Your task to perform on an android device: toggle notifications settings in the gmail app Image 0: 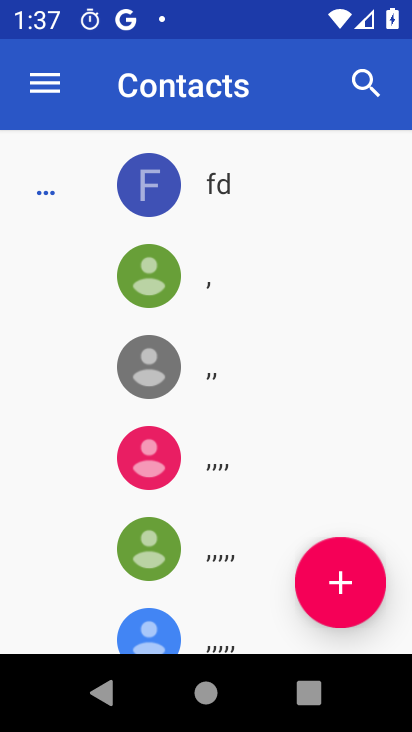
Step 0: press home button
Your task to perform on an android device: toggle notifications settings in the gmail app Image 1: 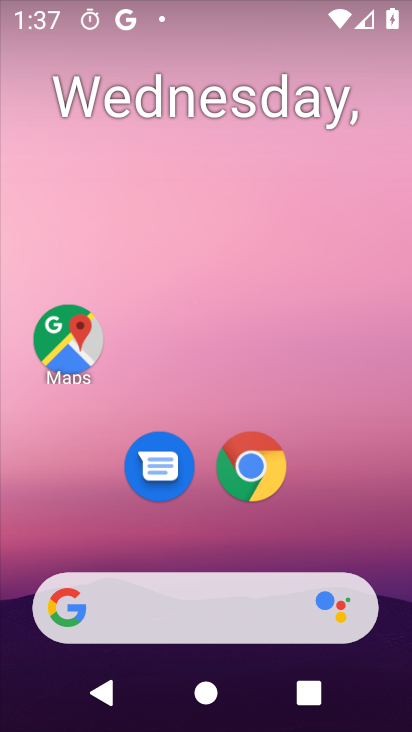
Step 1: drag from (354, 543) to (296, 148)
Your task to perform on an android device: toggle notifications settings in the gmail app Image 2: 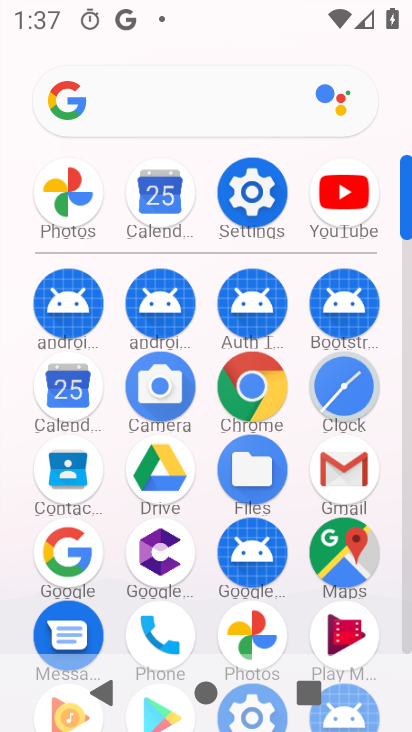
Step 2: click (325, 469)
Your task to perform on an android device: toggle notifications settings in the gmail app Image 3: 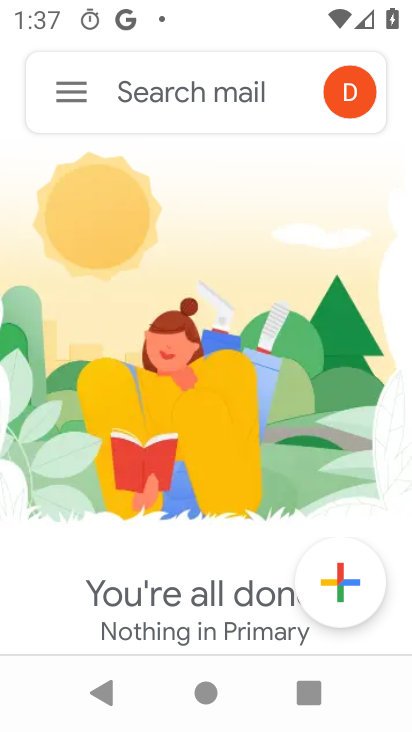
Step 3: click (59, 89)
Your task to perform on an android device: toggle notifications settings in the gmail app Image 4: 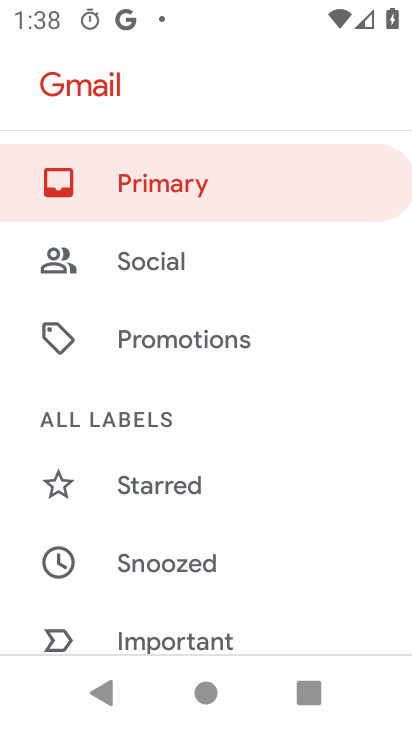
Step 4: drag from (220, 484) to (193, 56)
Your task to perform on an android device: toggle notifications settings in the gmail app Image 5: 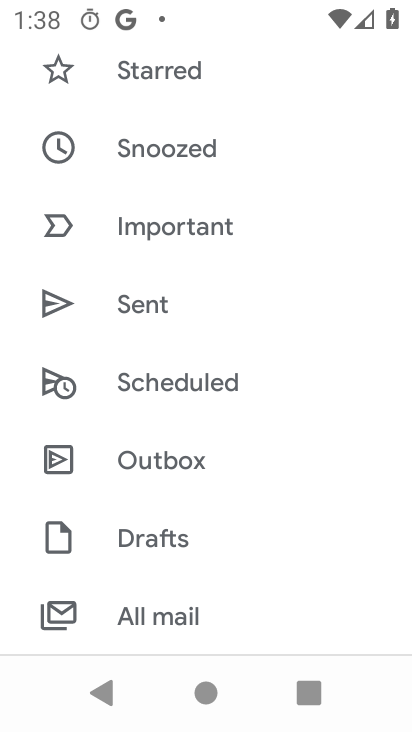
Step 5: drag from (246, 488) to (199, 39)
Your task to perform on an android device: toggle notifications settings in the gmail app Image 6: 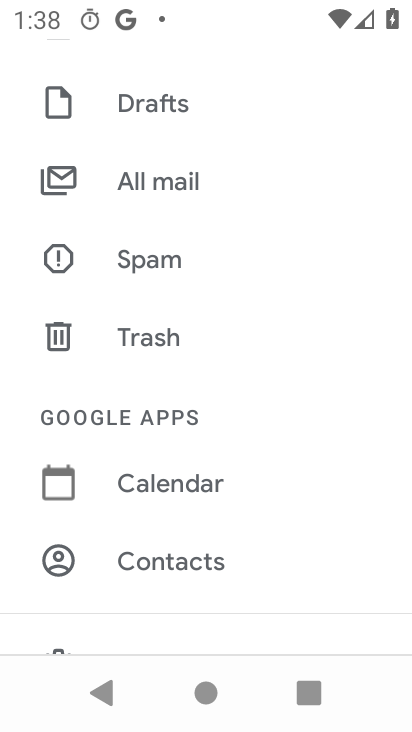
Step 6: drag from (206, 455) to (164, 38)
Your task to perform on an android device: toggle notifications settings in the gmail app Image 7: 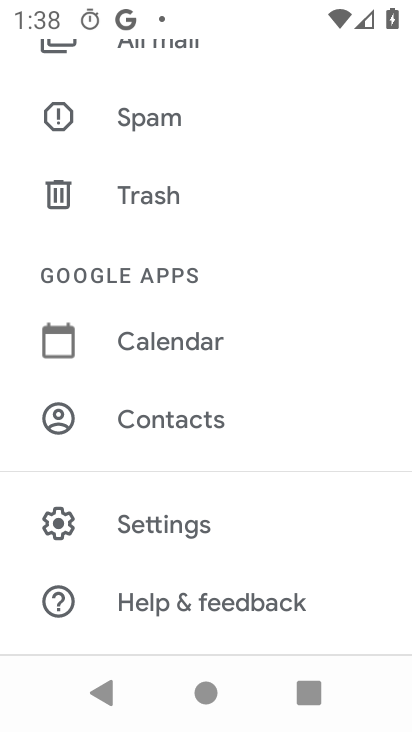
Step 7: click (234, 511)
Your task to perform on an android device: toggle notifications settings in the gmail app Image 8: 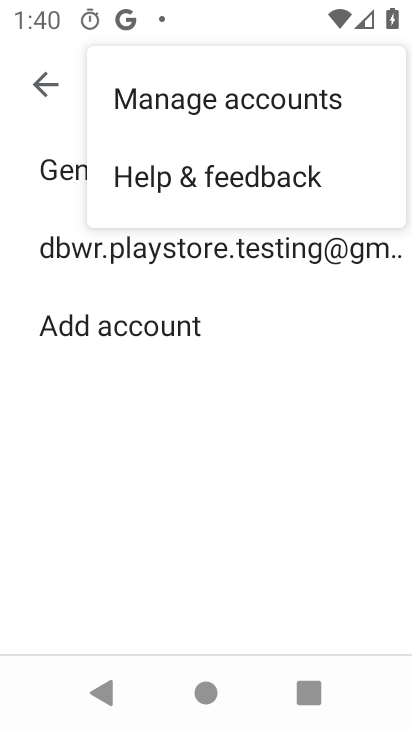
Step 8: press back button
Your task to perform on an android device: toggle notifications settings in the gmail app Image 9: 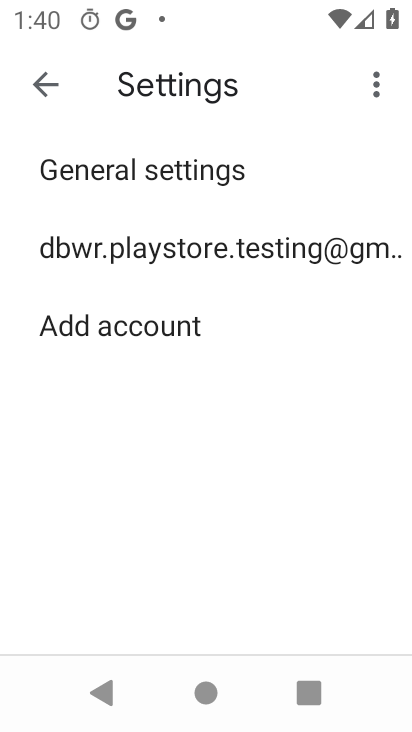
Step 9: press back button
Your task to perform on an android device: toggle notifications settings in the gmail app Image 10: 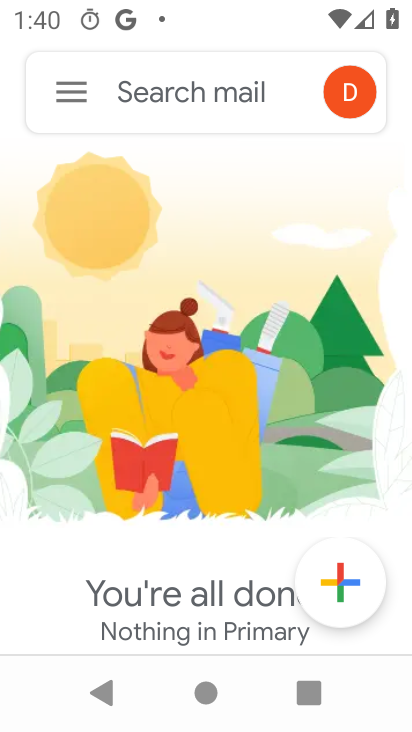
Step 10: click (74, 90)
Your task to perform on an android device: toggle notifications settings in the gmail app Image 11: 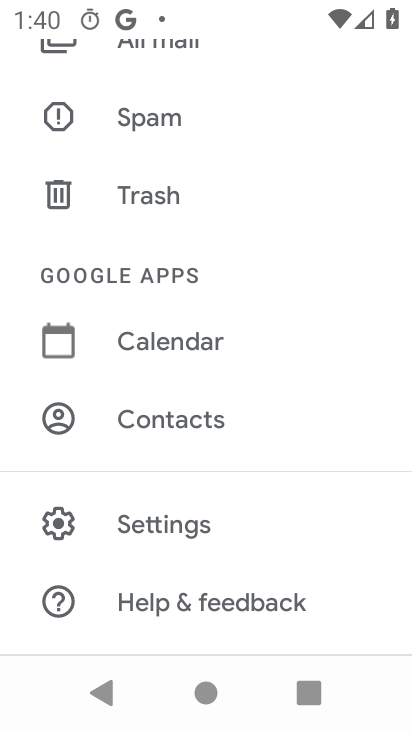
Step 11: click (178, 525)
Your task to perform on an android device: toggle notifications settings in the gmail app Image 12: 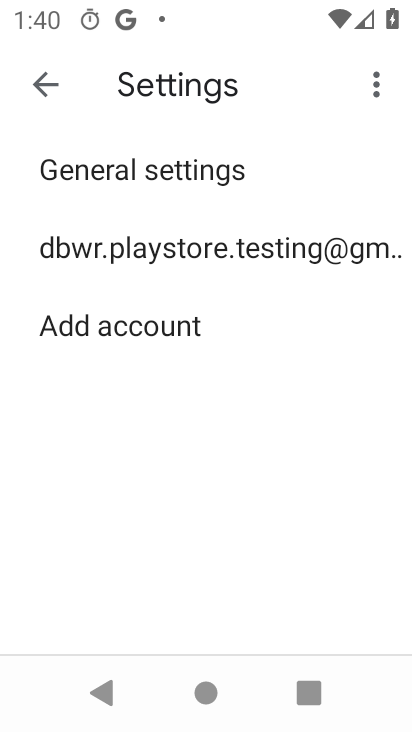
Step 12: click (218, 170)
Your task to perform on an android device: toggle notifications settings in the gmail app Image 13: 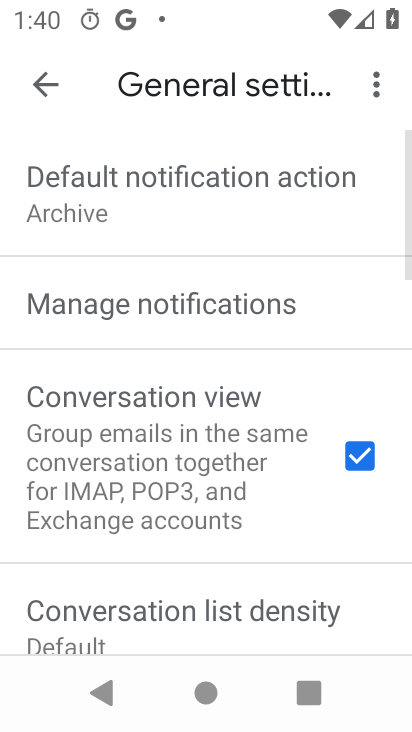
Step 13: drag from (192, 543) to (175, 190)
Your task to perform on an android device: toggle notifications settings in the gmail app Image 14: 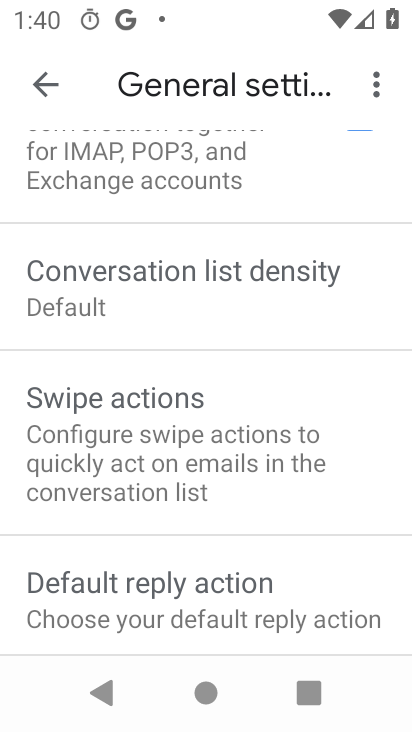
Step 14: drag from (221, 495) to (214, 198)
Your task to perform on an android device: toggle notifications settings in the gmail app Image 15: 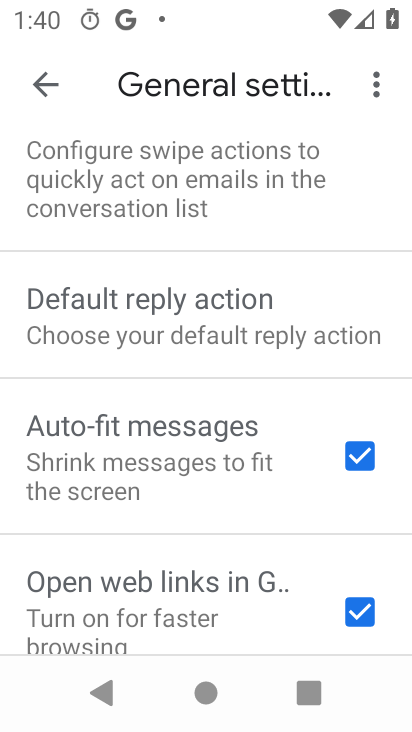
Step 15: drag from (225, 169) to (159, 582)
Your task to perform on an android device: toggle notifications settings in the gmail app Image 16: 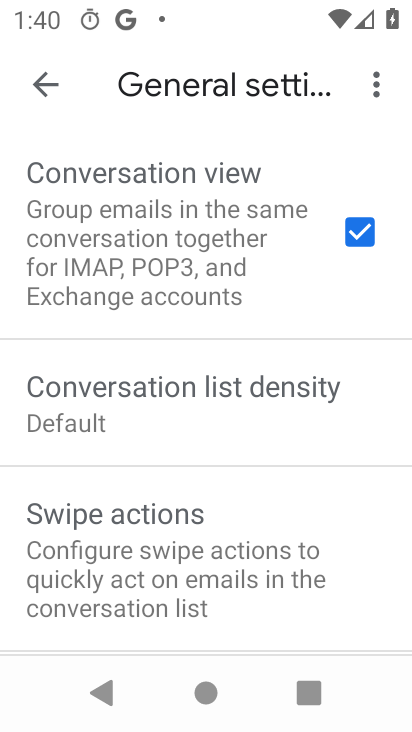
Step 16: drag from (116, 223) to (81, 549)
Your task to perform on an android device: toggle notifications settings in the gmail app Image 17: 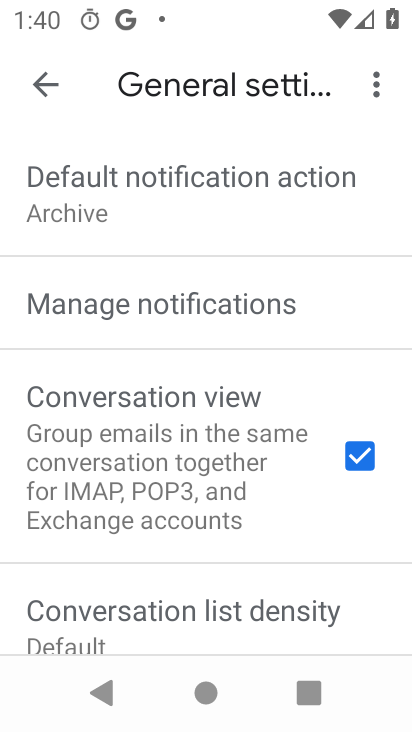
Step 17: click (74, 313)
Your task to perform on an android device: toggle notifications settings in the gmail app Image 18: 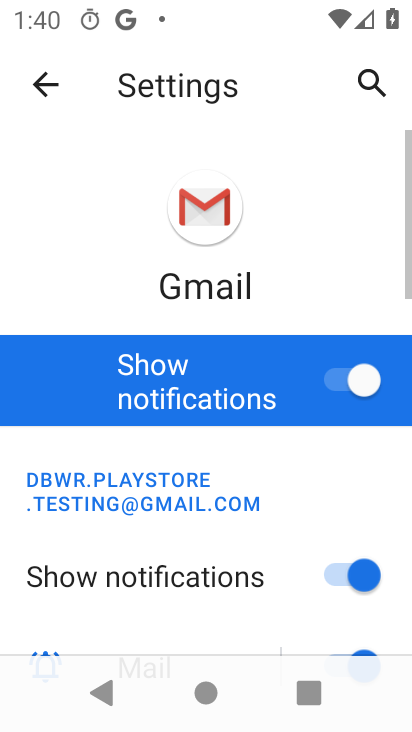
Step 18: drag from (250, 563) to (216, 136)
Your task to perform on an android device: toggle notifications settings in the gmail app Image 19: 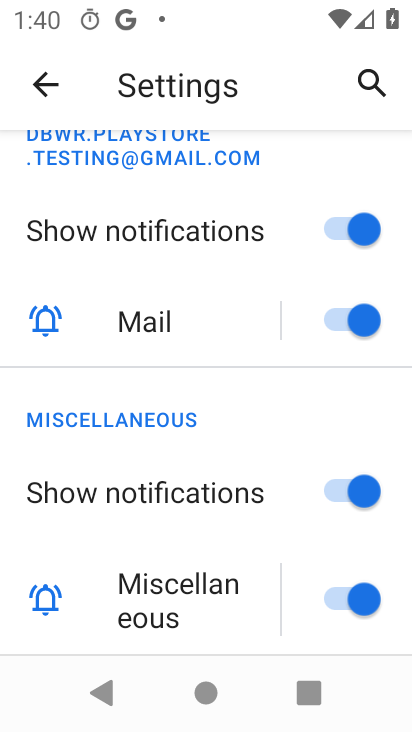
Step 19: drag from (206, 514) to (194, 166)
Your task to perform on an android device: toggle notifications settings in the gmail app Image 20: 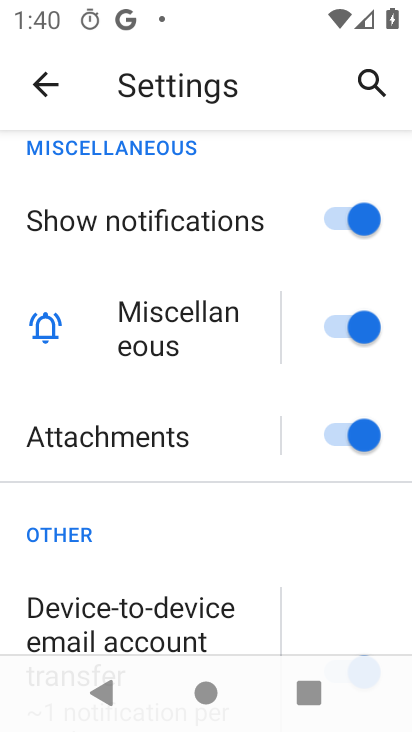
Step 20: drag from (238, 539) to (222, 169)
Your task to perform on an android device: toggle notifications settings in the gmail app Image 21: 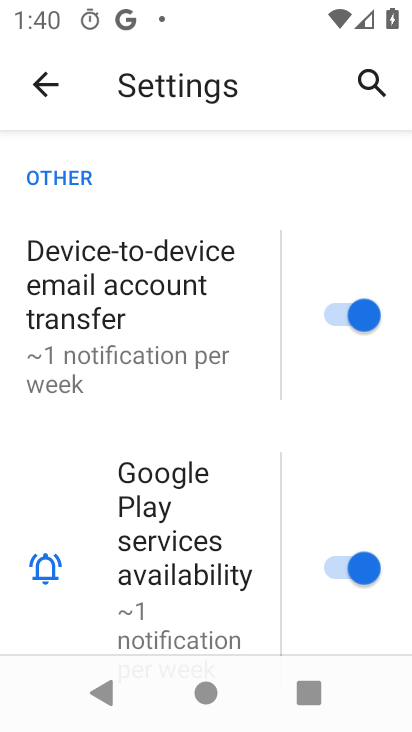
Step 21: drag from (144, 205) to (85, 558)
Your task to perform on an android device: toggle notifications settings in the gmail app Image 22: 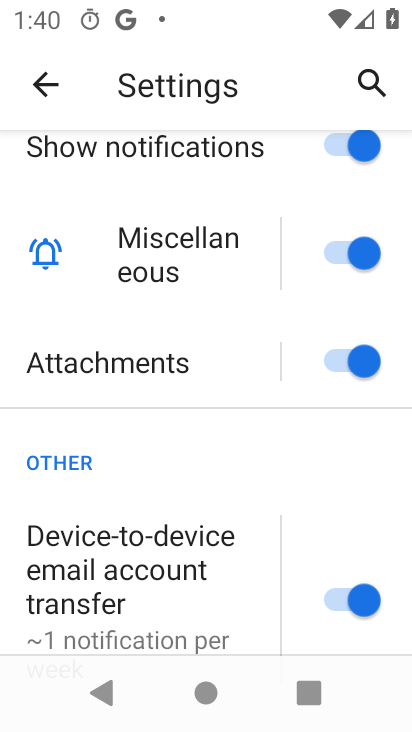
Step 22: drag from (138, 243) to (120, 542)
Your task to perform on an android device: toggle notifications settings in the gmail app Image 23: 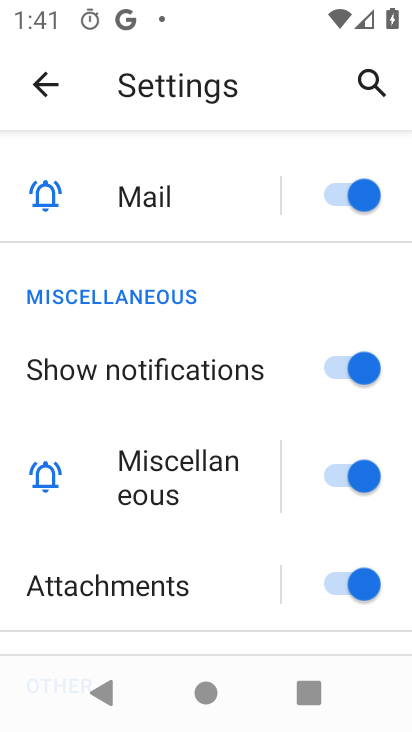
Step 23: drag from (177, 242) to (158, 559)
Your task to perform on an android device: toggle notifications settings in the gmail app Image 24: 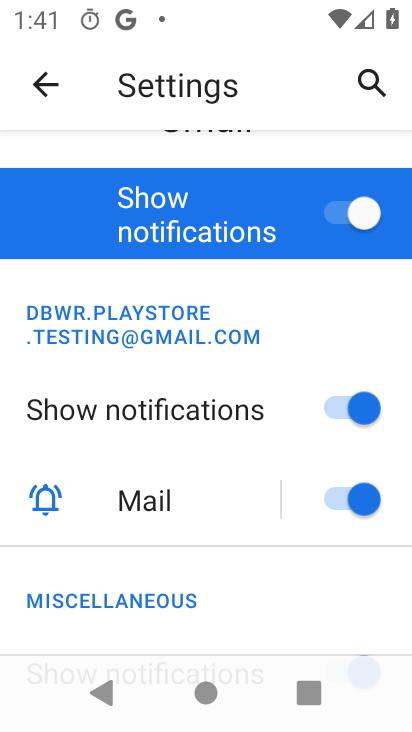
Step 24: click (367, 204)
Your task to perform on an android device: toggle notifications settings in the gmail app Image 25: 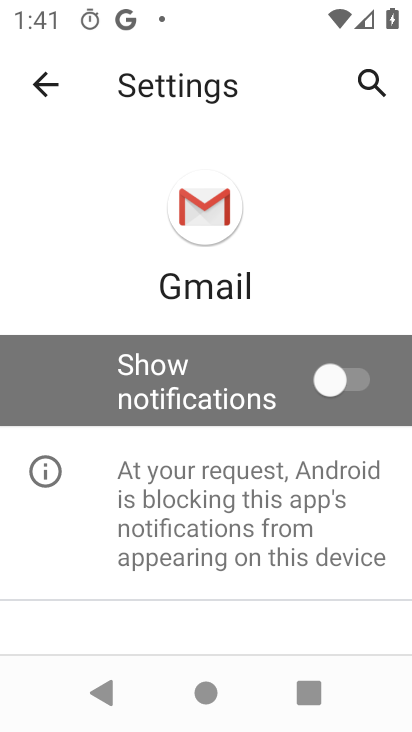
Step 25: task complete